Your task to perform on an android device: What's the weather going to be tomorrow? Image 0: 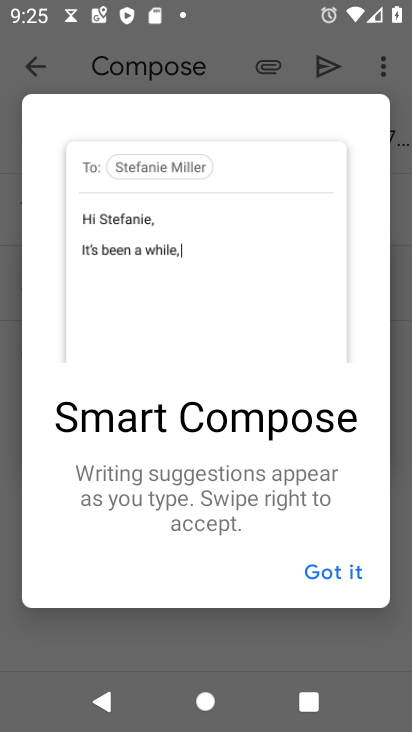
Step 0: press home button
Your task to perform on an android device: What's the weather going to be tomorrow? Image 1: 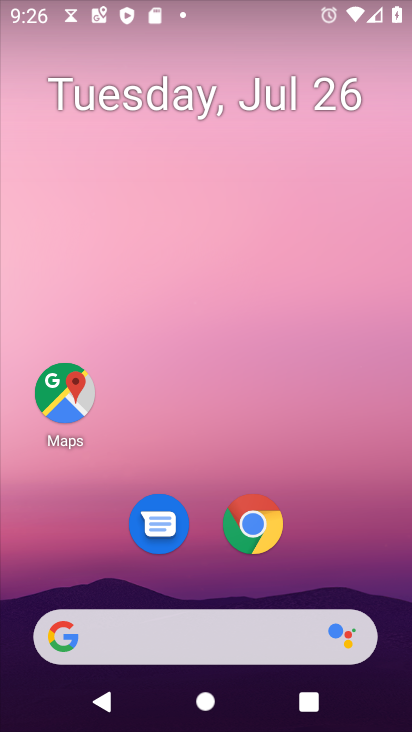
Step 1: click (143, 633)
Your task to perform on an android device: What's the weather going to be tomorrow? Image 2: 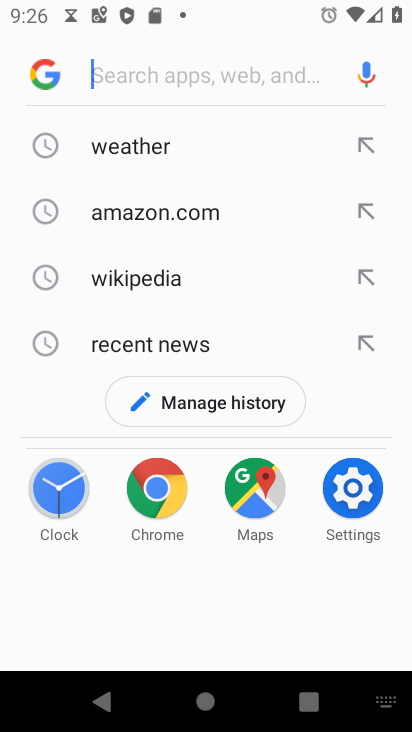
Step 2: click (145, 152)
Your task to perform on an android device: What's the weather going to be tomorrow? Image 3: 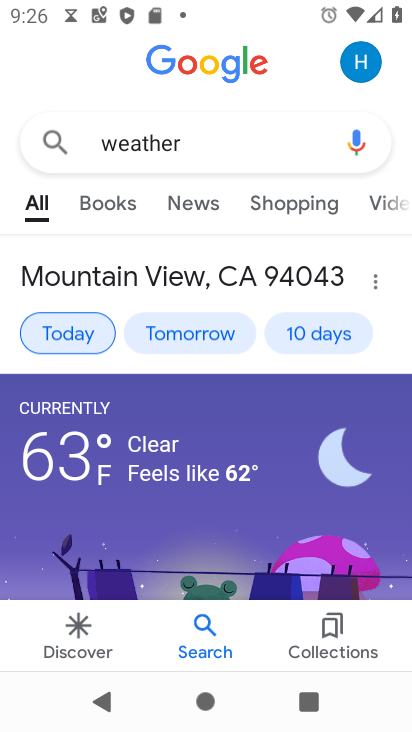
Step 3: click (173, 328)
Your task to perform on an android device: What's the weather going to be tomorrow? Image 4: 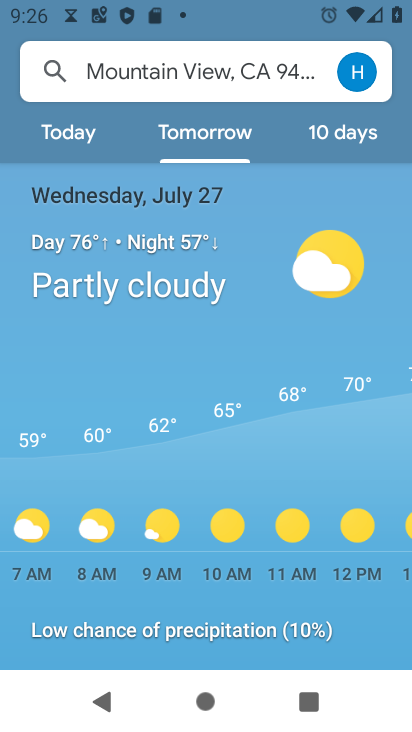
Step 4: task complete